Your task to perform on an android device: change alarm snooze length Image 0: 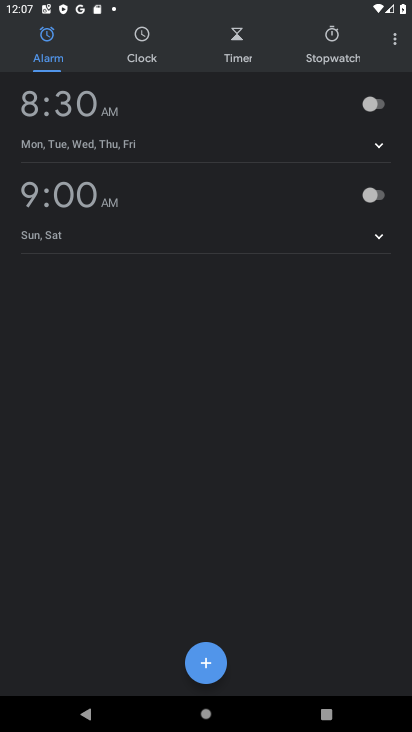
Step 0: press home button
Your task to perform on an android device: change alarm snooze length Image 1: 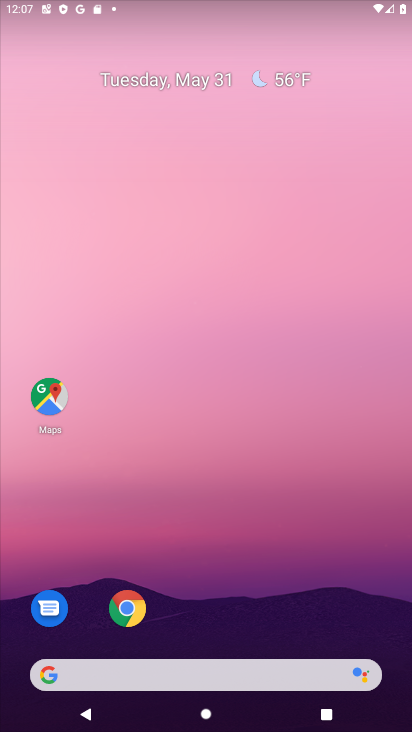
Step 1: drag from (232, 574) to (253, 20)
Your task to perform on an android device: change alarm snooze length Image 2: 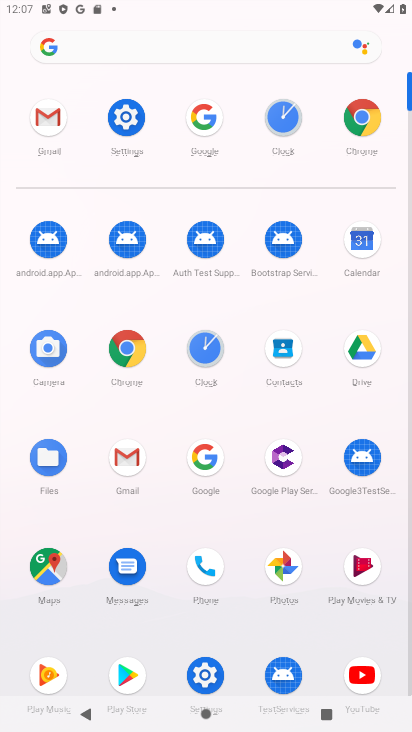
Step 2: click (208, 344)
Your task to perform on an android device: change alarm snooze length Image 3: 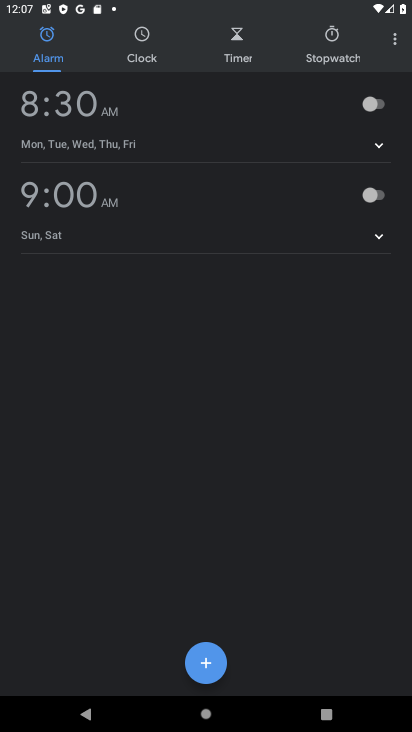
Step 3: click (385, 36)
Your task to perform on an android device: change alarm snooze length Image 4: 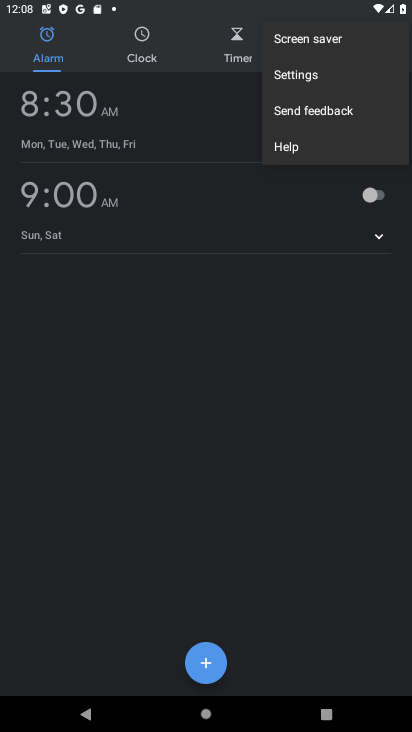
Step 4: click (304, 78)
Your task to perform on an android device: change alarm snooze length Image 5: 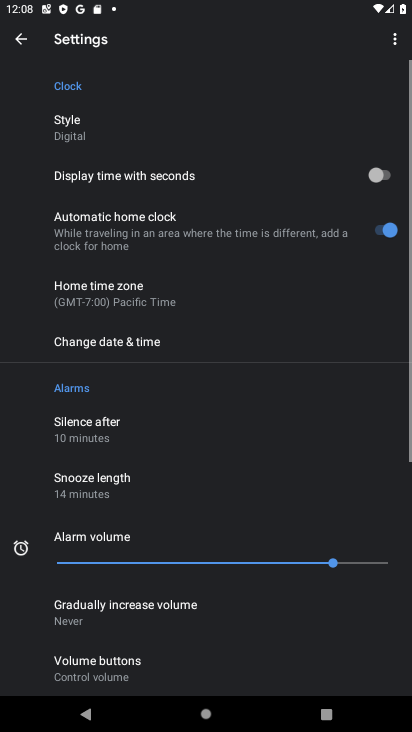
Step 5: click (121, 487)
Your task to perform on an android device: change alarm snooze length Image 6: 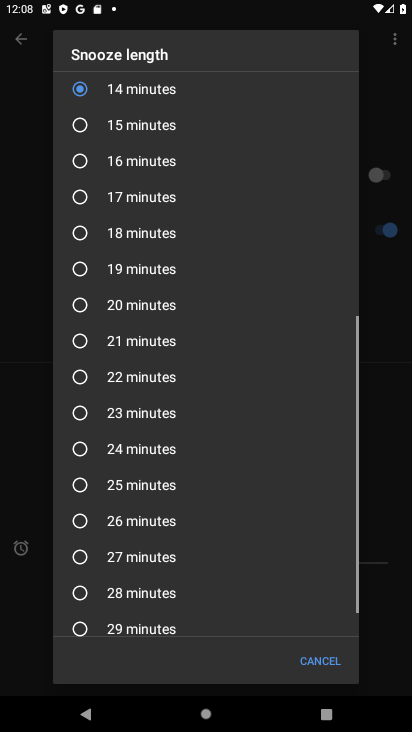
Step 6: click (79, 195)
Your task to perform on an android device: change alarm snooze length Image 7: 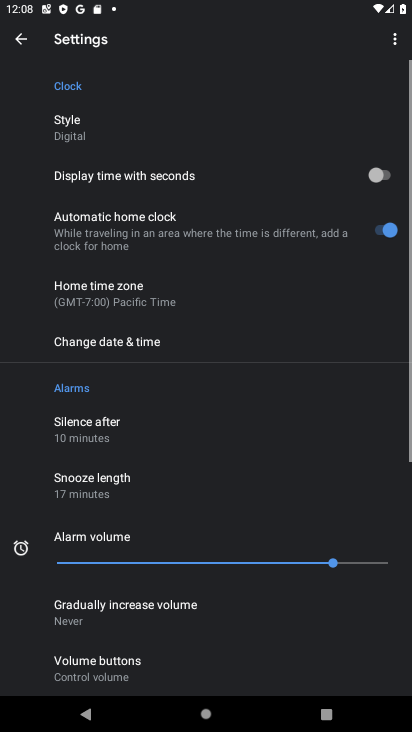
Step 7: task complete